Your task to perform on an android device: Open Android settings Image 0: 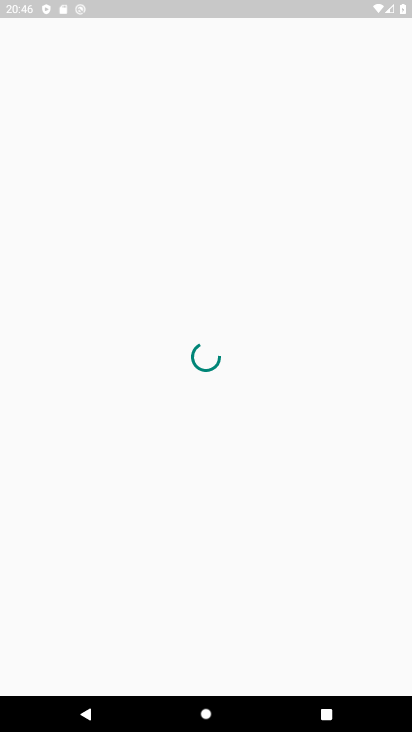
Step 0: drag from (373, 627) to (408, 395)
Your task to perform on an android device: Open Android settings Image 1: 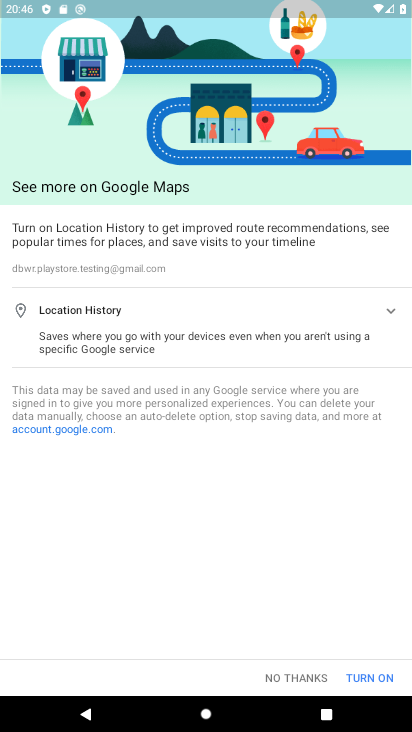
Step 1: press home button
Your task to perform on an android device: Open Android settings Image 2: 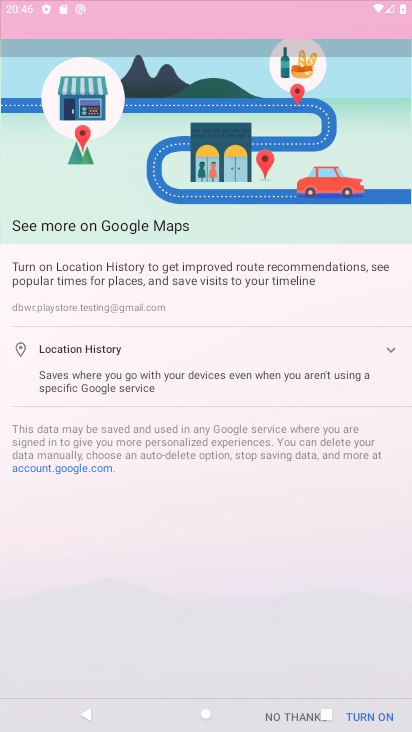
Step 2: drag from (408, 395) to (411, 514)
Your task to perform on an android device: Open Android settings Image 3: 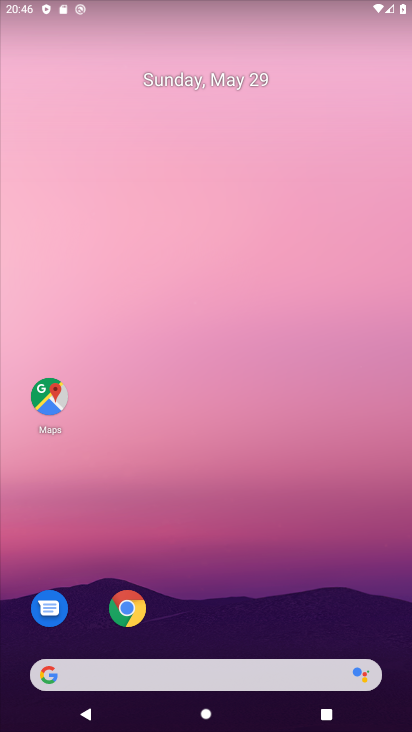
Step 3: drag from (357, 590) to (361, 160)
Your task to perform on an android device: Open Android settings Image 4: 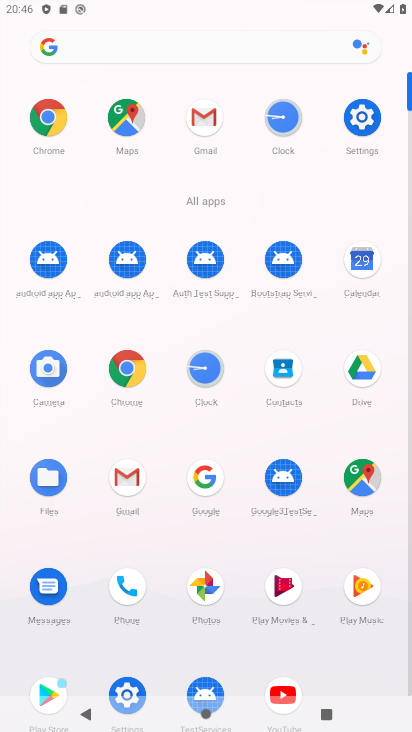
Step 4: click (365, 123)
Your task to perform on an android device: Open Android settings Image 5: 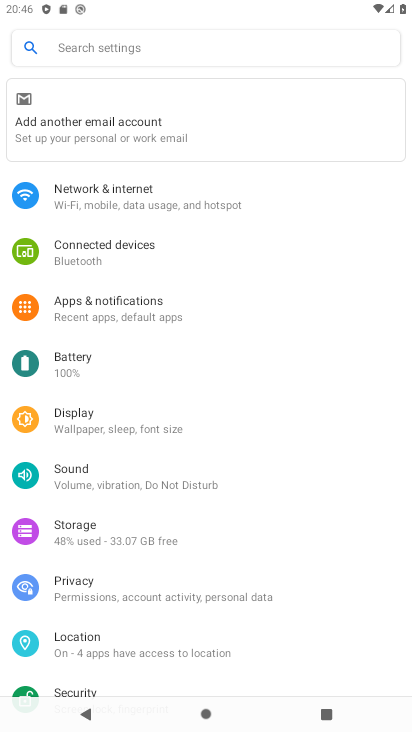
Step 5: drag from (348, 412) to (348, 300)
Your task to perform on an android device: Open Android settings Image 6: 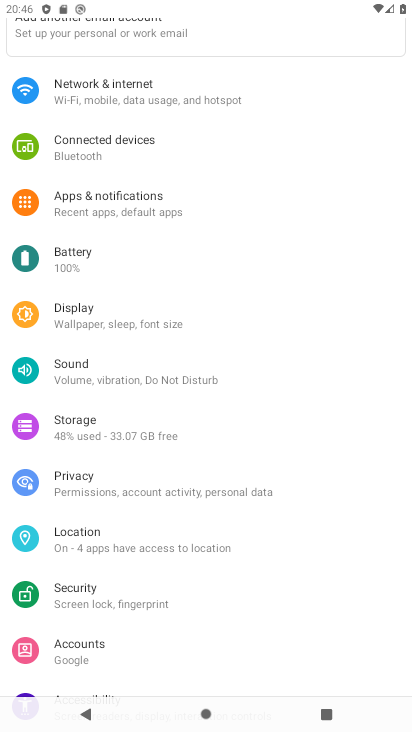
Step 6: drag from (341, 434) to (311, 271)
Your task to perform on an android device: Open Android settings Image 7: 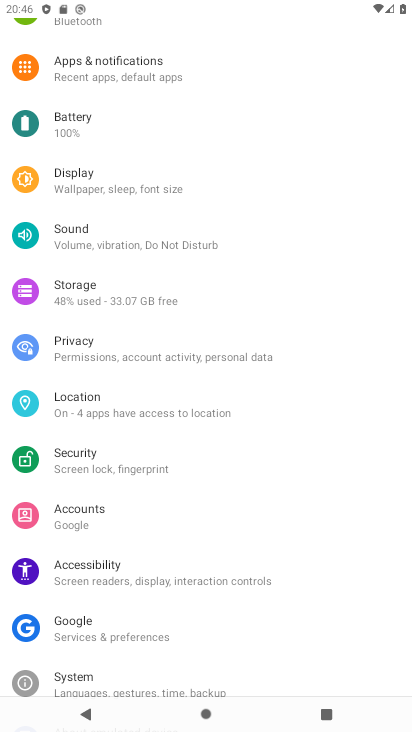
Step 7: drag from (349, 501) to (356, 344)
Your task to perform on an android device: Open Android settings Image 8: 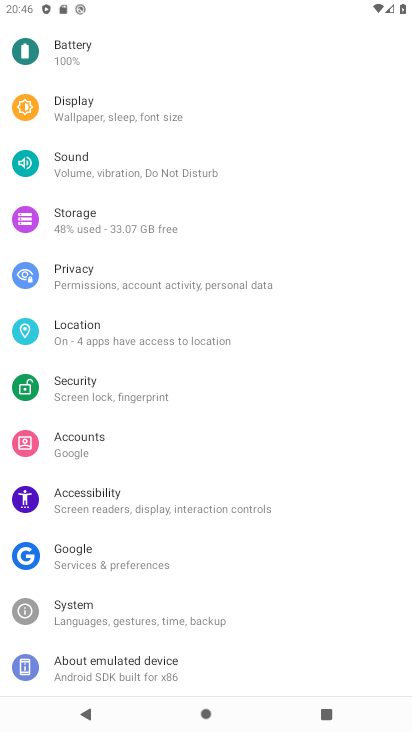
Step 8: click (281, 624)
Your task to perform on an android device: Open Android settings Image 9: 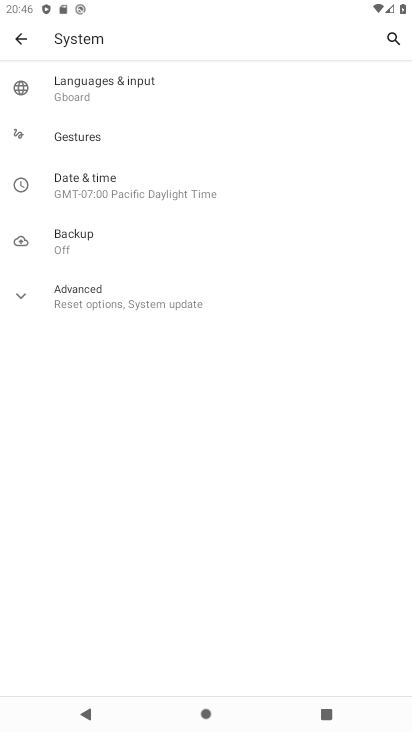
Step 9: click (216, 297)
Your task to perform on an android device: Open Android settings Image 10: 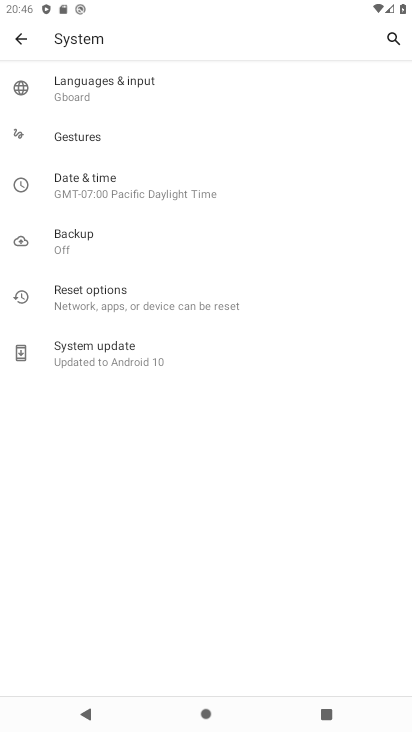
Step 10: task complete